Your task to perform on an android device: change notifications settings Image 0: 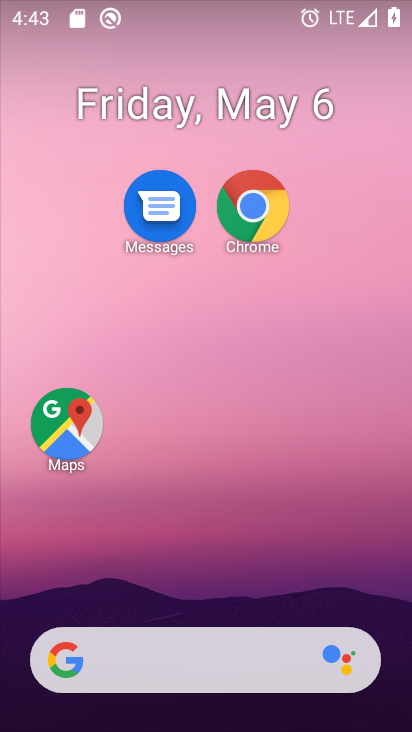
Step 0: drag from (161, 621) to (183, 250)
Your task to perform on an android device: change notifications settings Image 1: 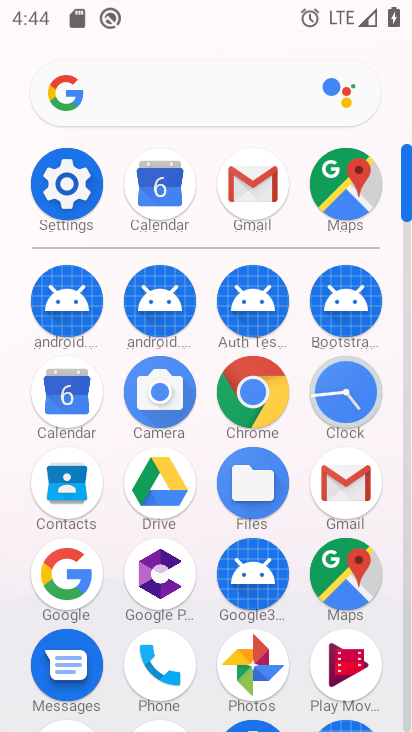
Step 1: click (58, 174)
Your task to perform on an android device: change notifications settings Image 2: 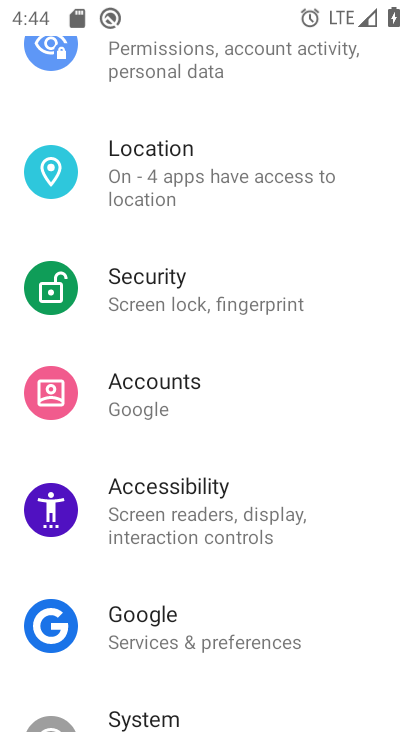
Step 2: drag from (183, 122) to (179, 603)
Your task to perform on an android device: change notifications settings Image 3: 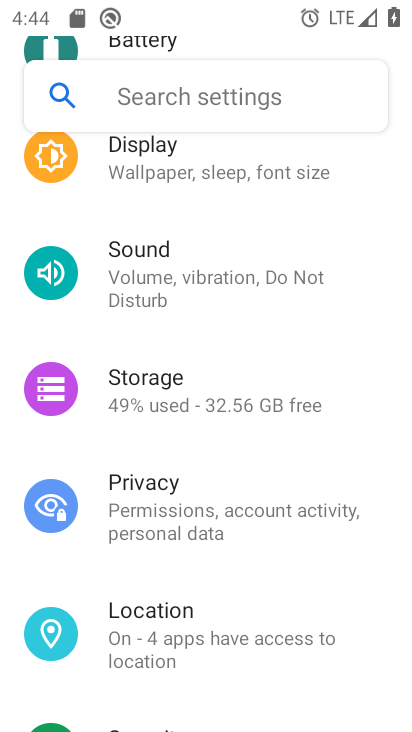
Step 3: drag from (225, 222) to (226, 579)
Your task to perform on an android device: change notifications settings Image 4: 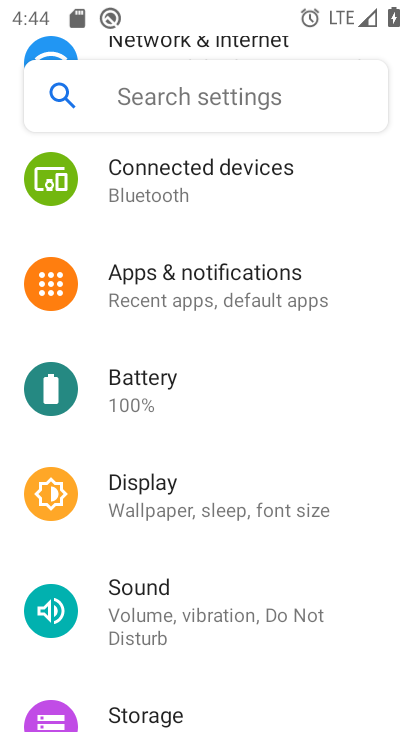
Step 4: click (225, 300)
Your task to perform on an android device: change notifications settings Image 5: 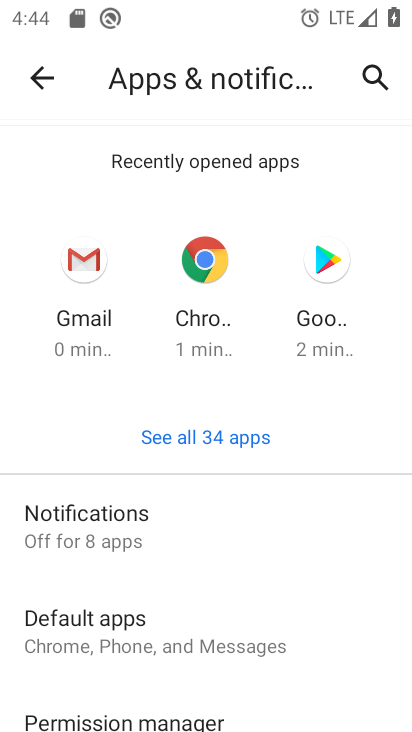
Step 5: click (84, 534)
Your task to perform on an android device: change notifications settings Image 6: 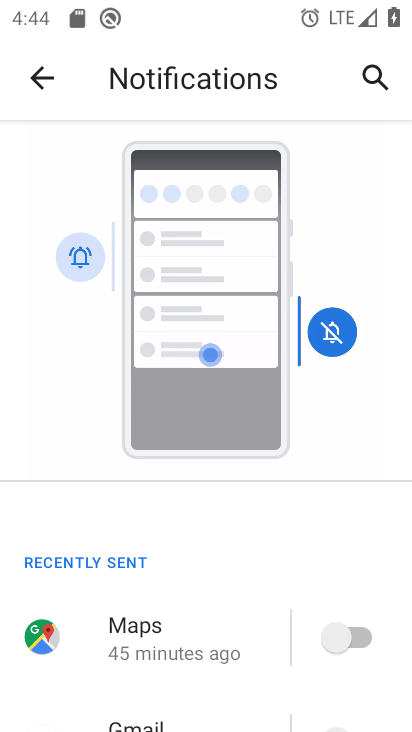
Step 6: drag from (241, 643) to (226, 327)
Your task to perform on an android device: change notifications settings Image 7: 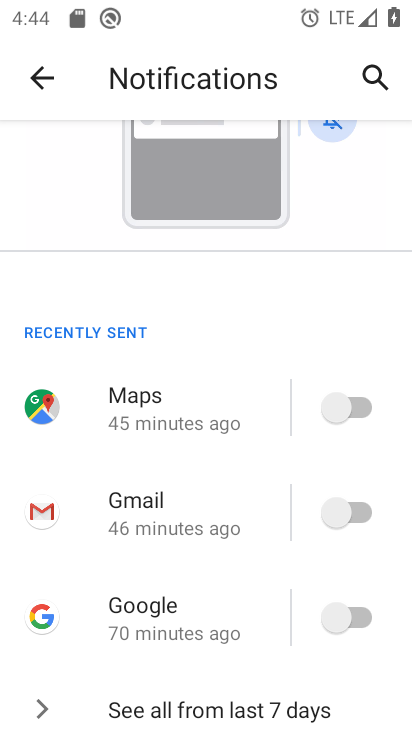
Step 7: click (371, 412)
Your task to perform on an android device: change notifications settings Image 8: 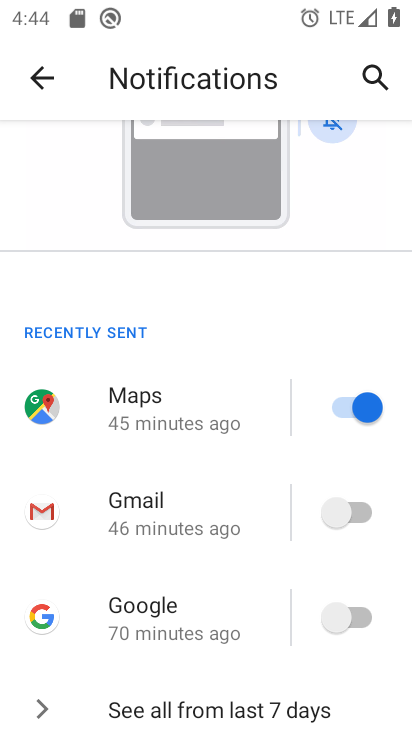
Step 8: click (365, 514)
Your task to perform on an android device: change notifications settings Image 9: 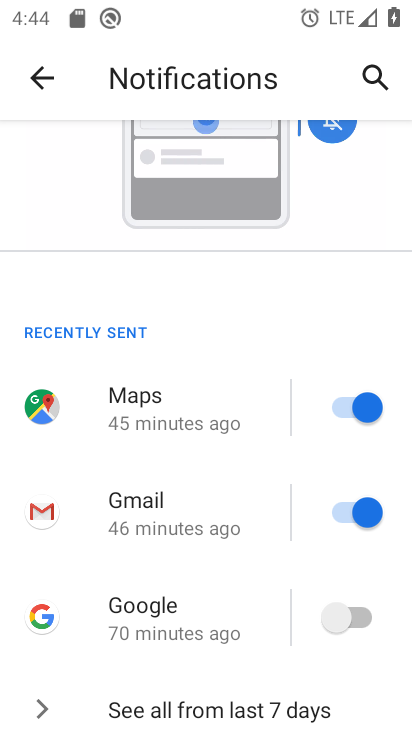
Step 9: click (361, 613)
Your task to perform on an android device: change notifications settings Image 10: 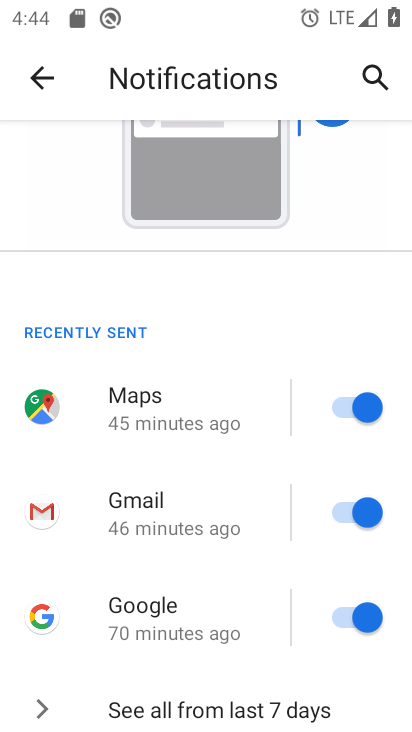
Step 10: click (303, 711)
Your task to perform on an android device: change notifications settings Image 11: 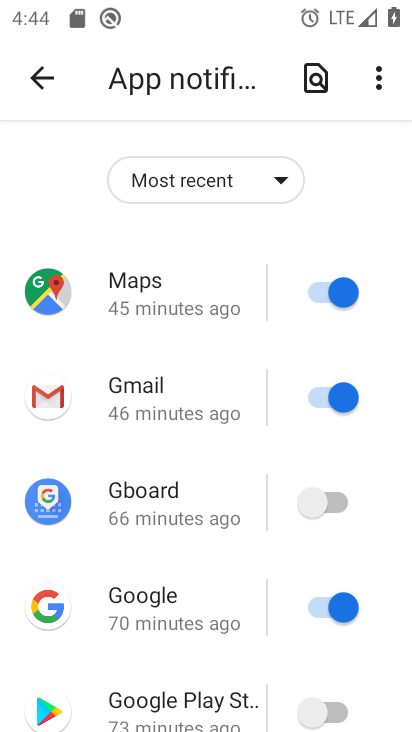
Step 11: click (337, 498)
Your task to perform on an android device: change notifications settings Image 12: 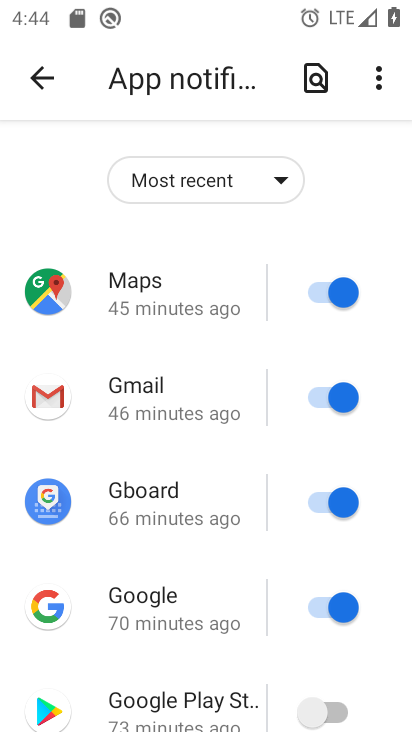
Step 12: click (337, 714)
Your task to perform on an android device: change notifications settings Image 13: 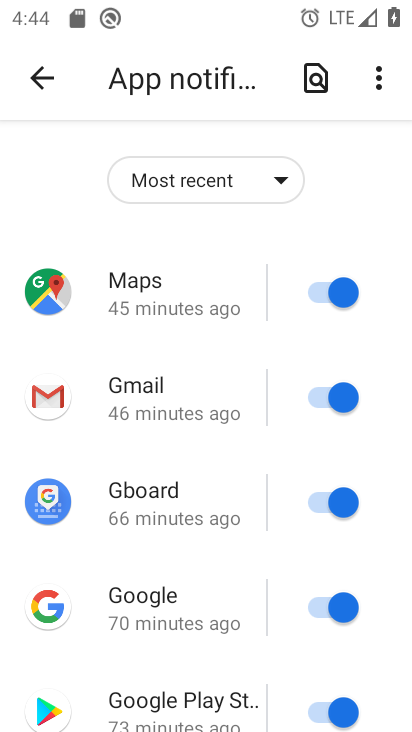
Step 13: drag from (167, 717) to (165, 377)
Your task to perform on an android device: change notifications settings Image 14: 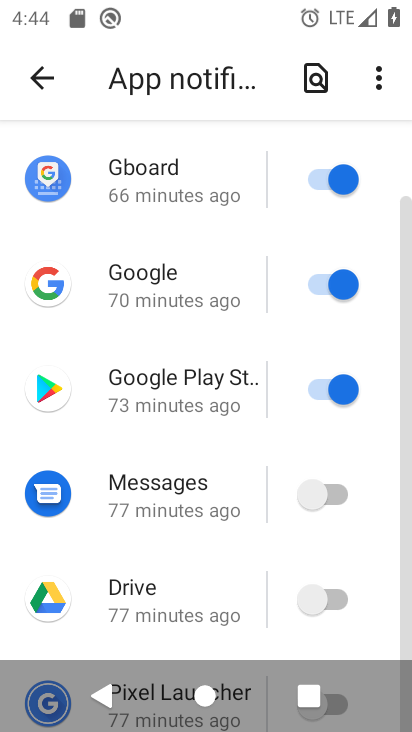
Step 14: click (341, 600)
Your task to perform on an android device: change notifications settings Image 15: 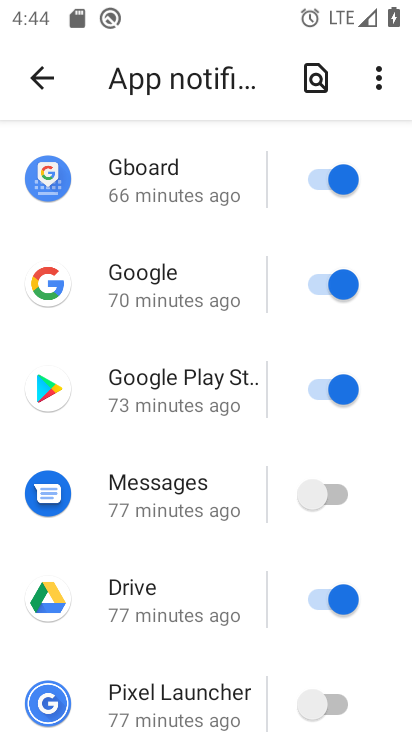
Step 15: click (339, 491)
Your task to perform on an android device: change notifications settings Image 16: 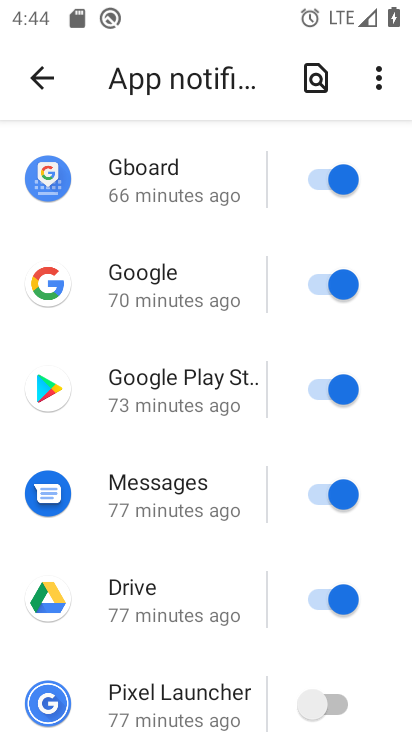
Step 16: drag from (113, 710) to (139, 426)
Your task to perform on an android device: change notifications settings Image 17: 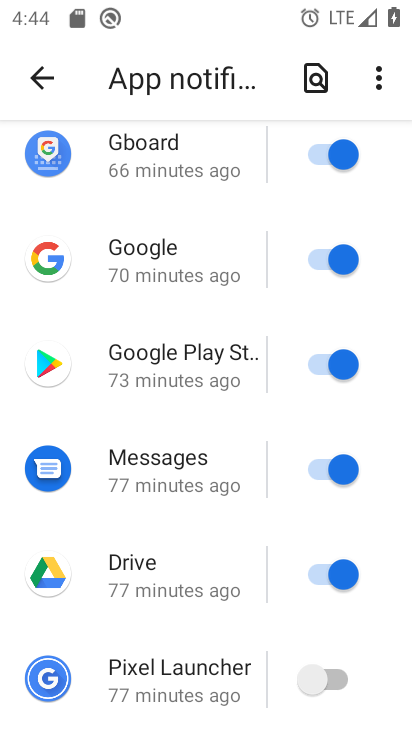
Step 17: click (330, 679)
Your task to perform on an android device: change notifications settings Image 18: 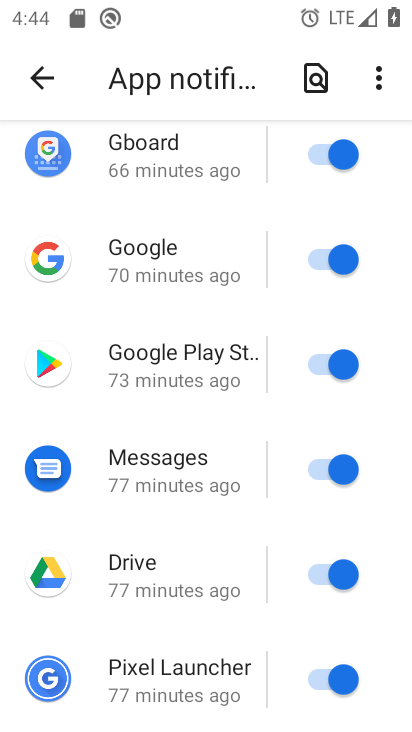
Step 18: task complete